Your task to perform on an android device: Open battery settings Image 0: 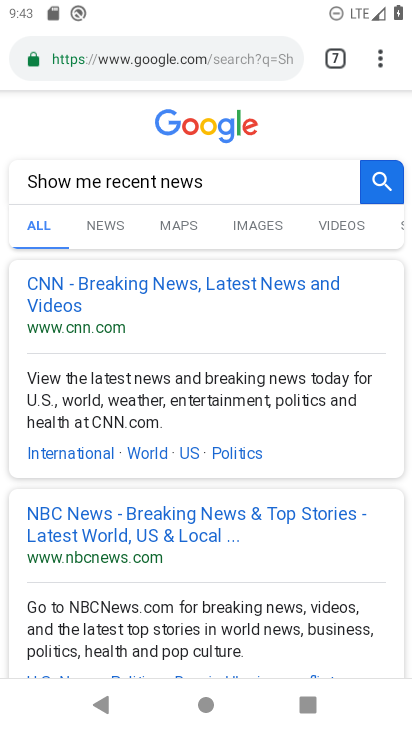
Step 0: press home button
Your task to perform on an android device: Open battery settings Image 1: 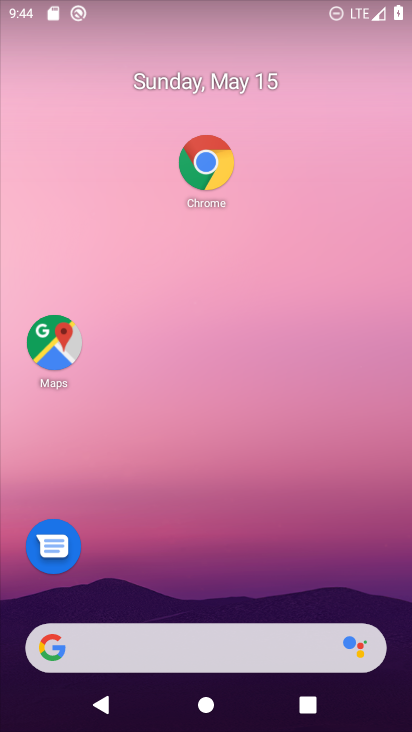
Step 1: drag from (191, 600) to (216, 225)
Your task to perform on an android device: Open battery settings Image 2: 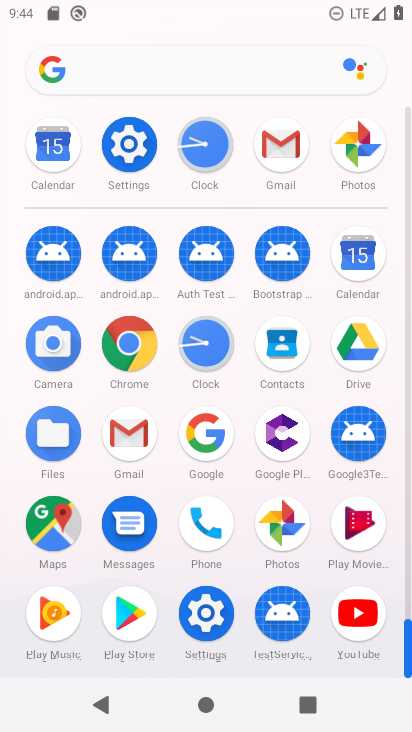
Step 2: click (197, 605)
Your task to perform on an android device: Open battery settings Image 3: 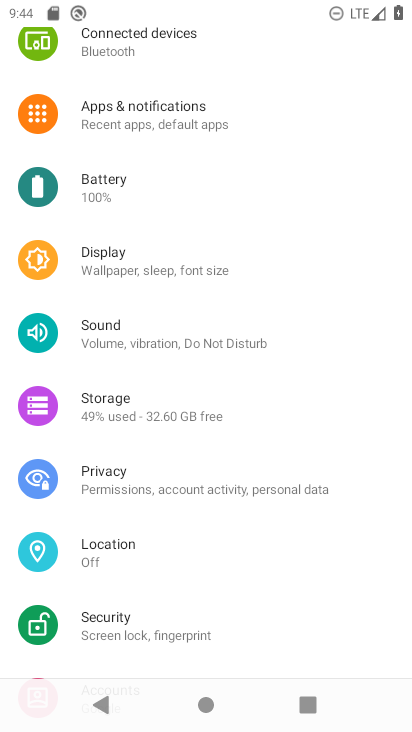
Step 3: click (138, 187)
Your task to perform on an android device: Open battery settings Image 4: 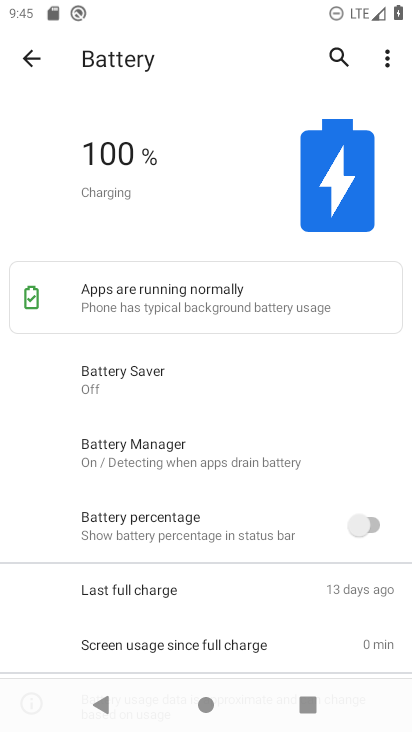
Step 4: task complete